Your task to perform on an android device: Show me productivity apps on the Play Store Image 0: 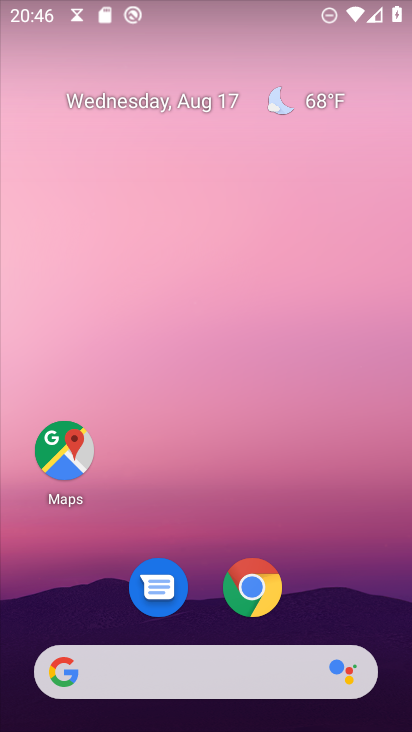
Step 0: drag from (2, 684) to (39, 99)
Your task to perform on an android device: Show me productivity apps on the Play Store Image 1: 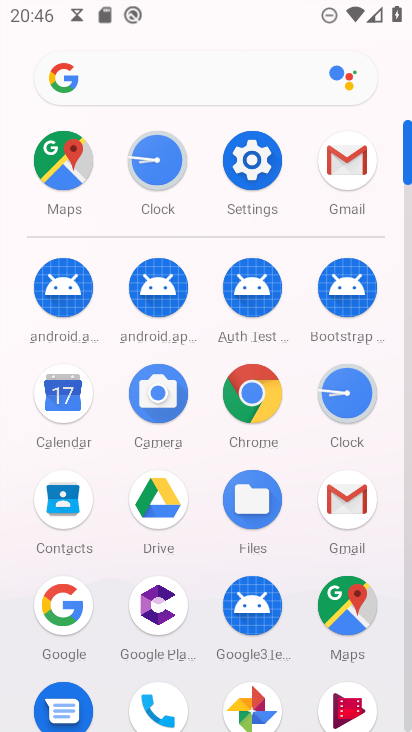
Step 1: drag from (388, 630) to (314, 326)
Your task to perform on an android device: Show me productivity apps on the Play Store Image 2: 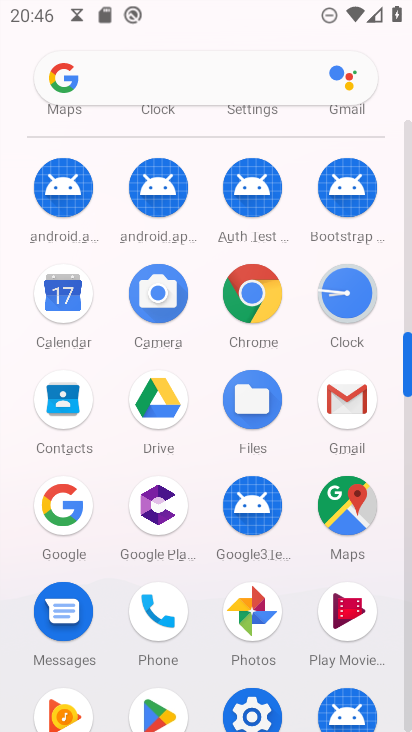
Step 2: drag from (387, 700) to (346, 335)
Your task to perform on an android device: Show me productivity apps on the Play Store Image 3: 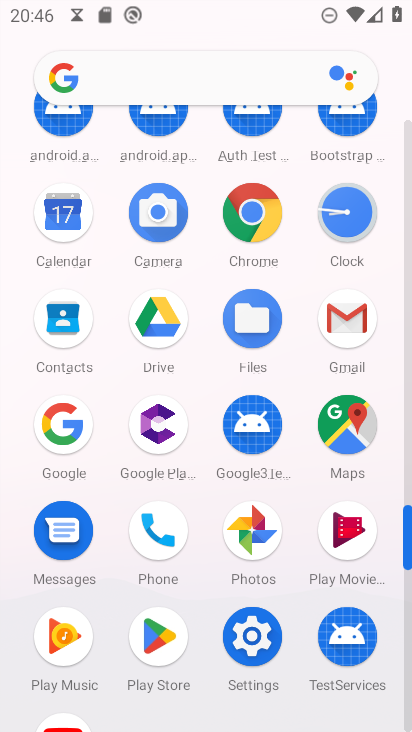
Step 3: click (157, 642)
Your task to perform on an android device: Show me productivity apps on the Play Store Image 4: 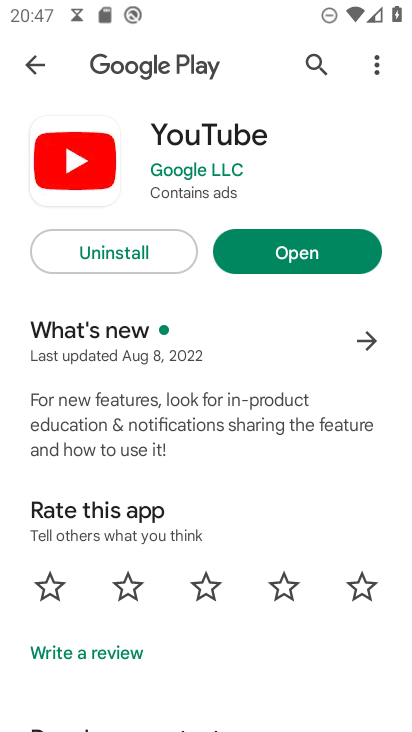
Step 4: press back button
Your task to perform on an android device: Show me productivity apps on the Play Store Image 5: 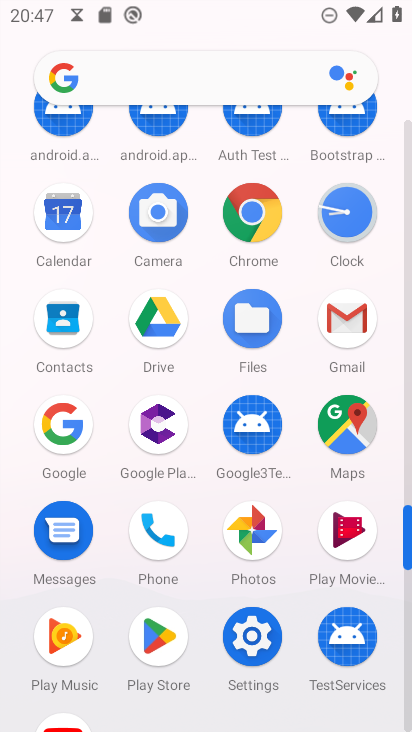
Step 5: click (174, 636)
Your task to perform on an android device: Show me productivity apps on the Play Store Image 6: 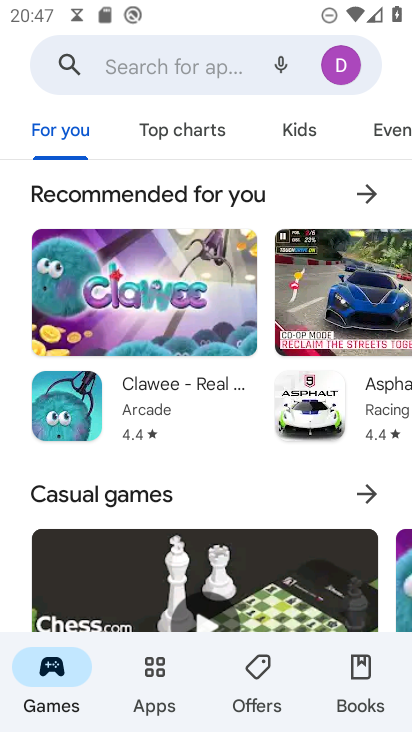
Step 6: click (130, 72)
Your task to perform on an android device: Show me productivity apps on the Play Store Image 7: 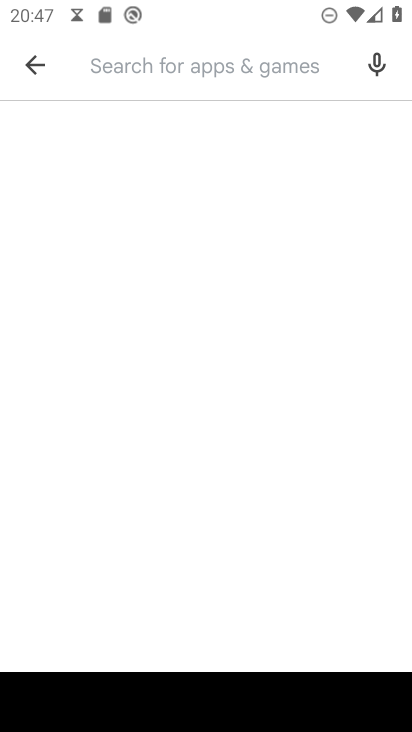
Step 7: type "productivity apps"
Your task to perform on an android device: Show me productivity apps on the Play Store Image 8: 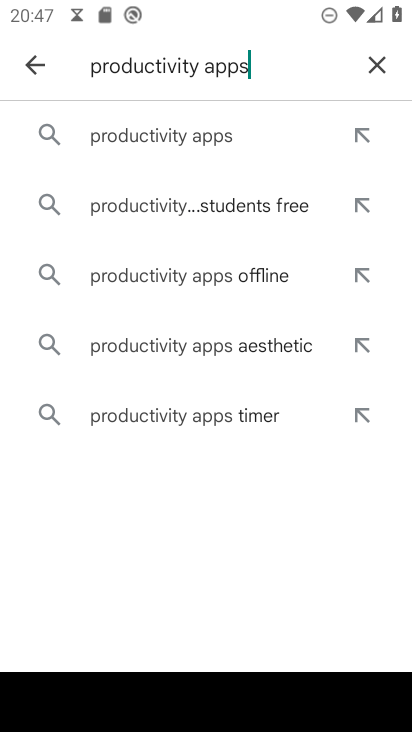
Step 8: click (190, 143)
Your task to perform on an android device: Show me productivity apps on the Play Store Image 9: 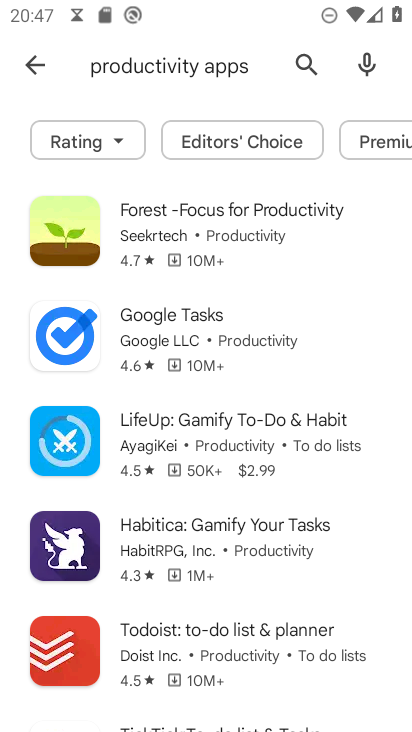
Step 9: task complete